Your task to perform on an android device: Search for Mexican restaurants on Maps Image 0: 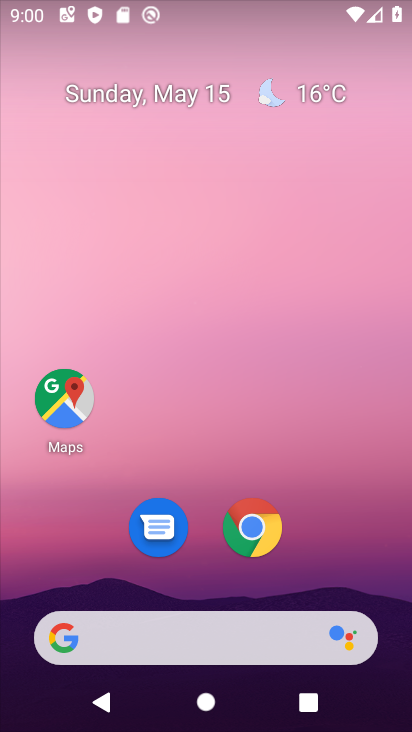
Step 0: press home button
Your task to perform on an android device: Search for Mexican restaurants on Maps Image 1: 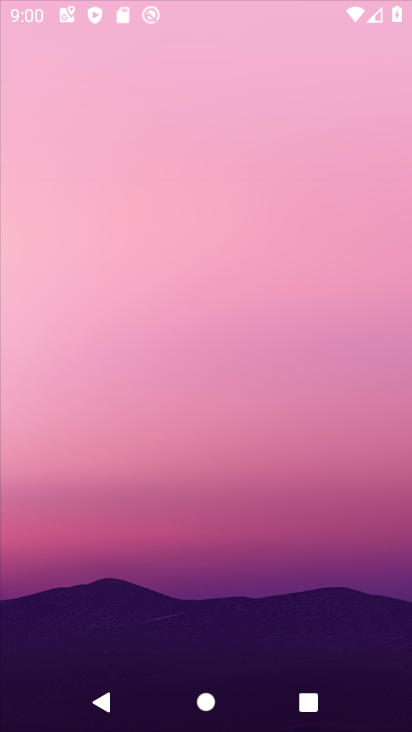
Step 1: drag from (397, 363) to (400, 112)
Your task to perform on an android device: Search for Mexican restaurants on Maps Image 2: 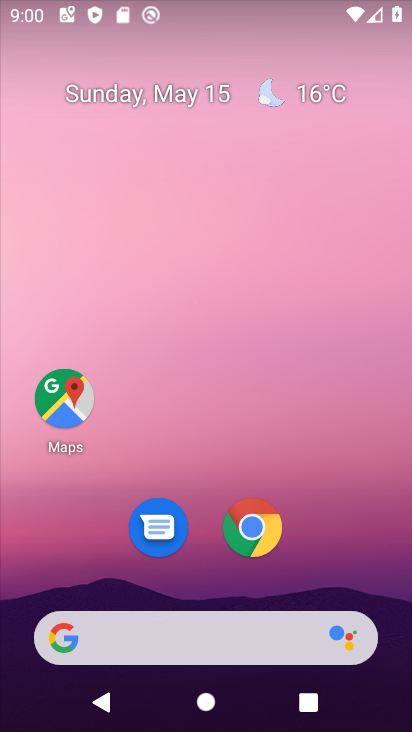
Step 2: click (64, 394)
Your task to perform on an android device: Search for Mexican restaurants on Maps Image 3: 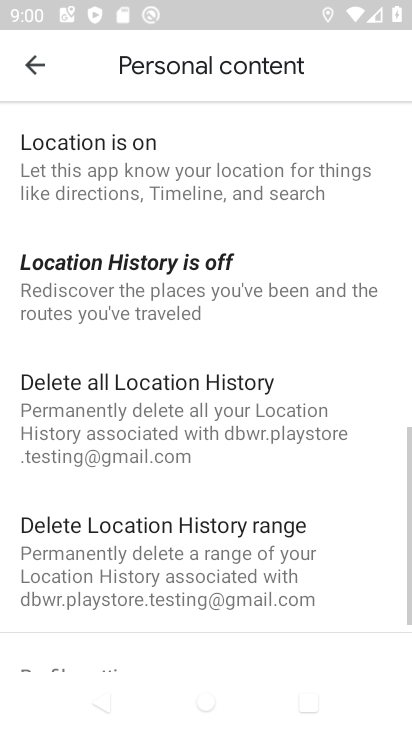
Step 3: click (29, 63)
Your task to perform on an android device: Search for Mexican restaurants on Maps Image 4: 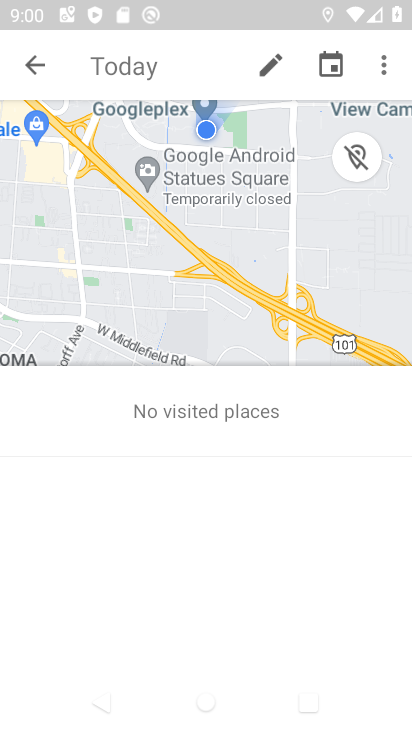
Step 4: click (45, 69)
Your task to perform on an android device: Search for Mexican restaurants on Maps Image 5: 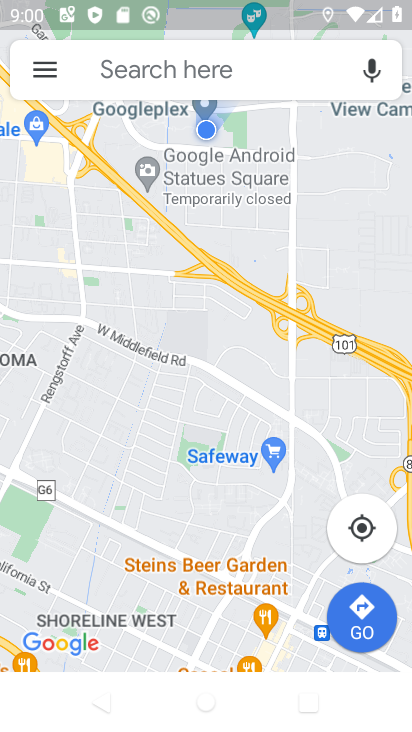
Step 5: click (114, 67)
Your task to perform on an android device: Search for Mexican restaurants on Maps Image 6: 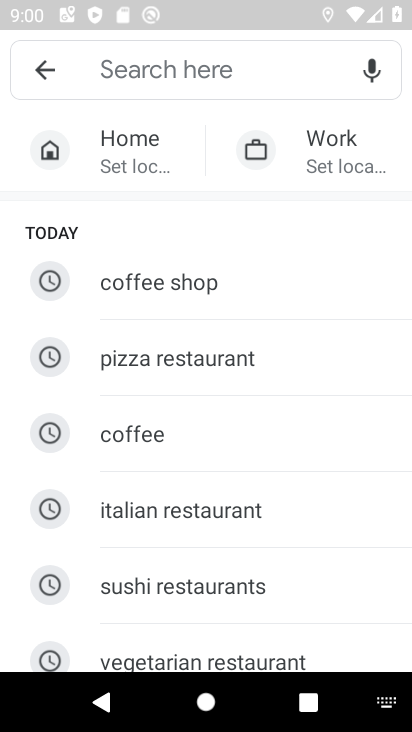
Step 6: type "mexican restaurant"
Your task to perform on an android device: Search for Mexican restaurants on Maps Image 7: 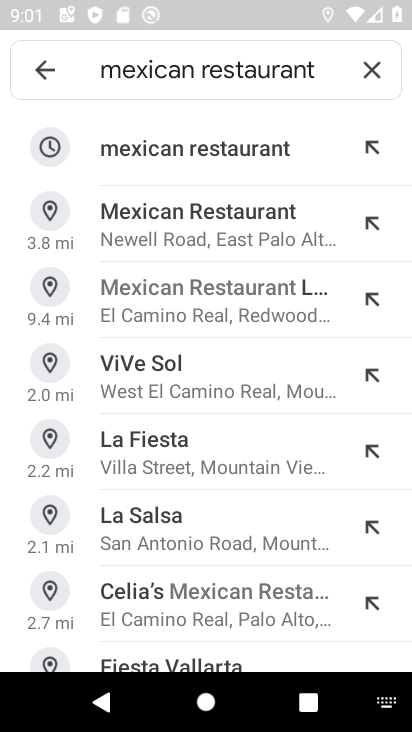
Step 7: click (164, 158)
Your task to perform on an android device: Search for Mexican restaurants on Maps Image 8: 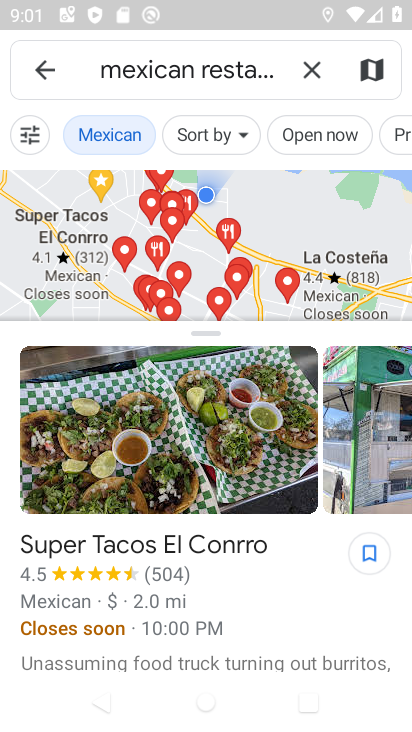
Step 8: task complete